Your task to perform on an android device: Go to notification settings Image 0: 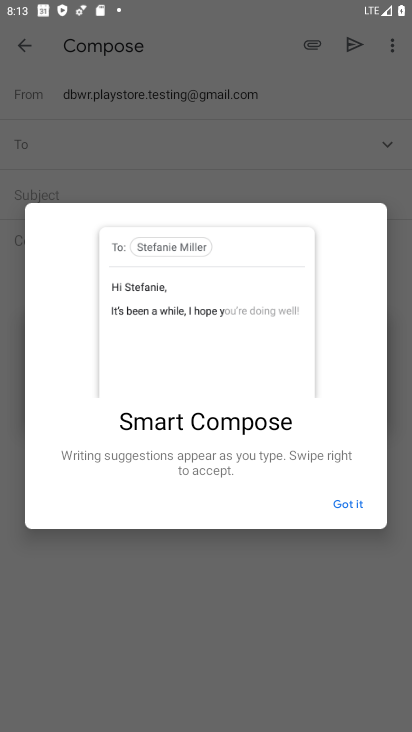
Step 0: click (350, 510)
Your task to perform on an android device: Go to notification settings Image 1: 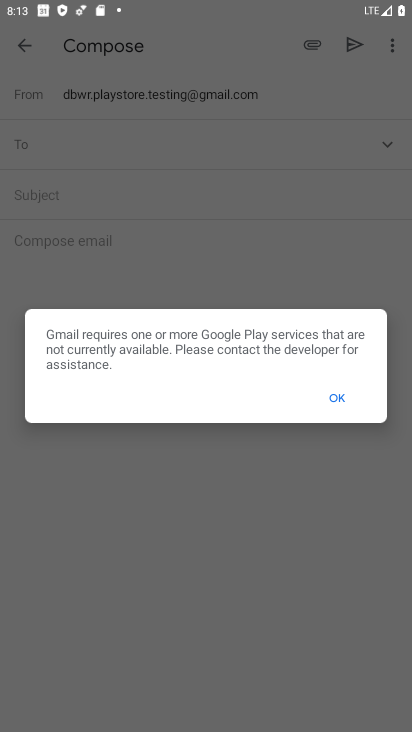
Step 1: press home button
Your task to perform on an android device: Go to notification settings Image 2: 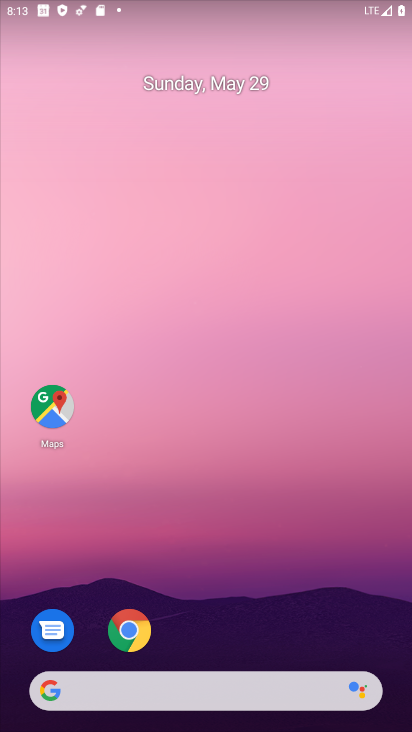
Step 2: drag from (213, 652) to (6, 1)
Your task to perform on an android device: Go to notification settings Image 3: 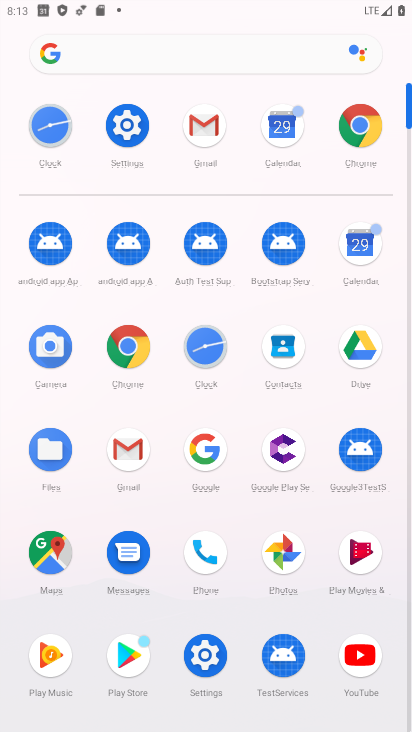
Step 3: click (124, 115)
Your task to perform on an android device: Go to notification settings Image 4: 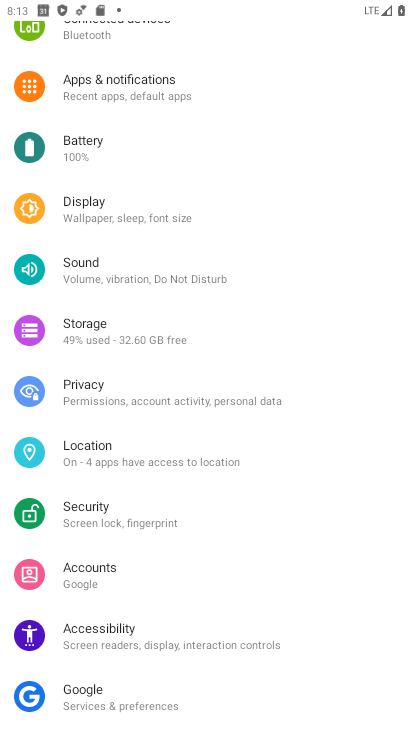
Step 4: click (126, 105)
Your task to perform on an android device: Go to notification settings Image 5: 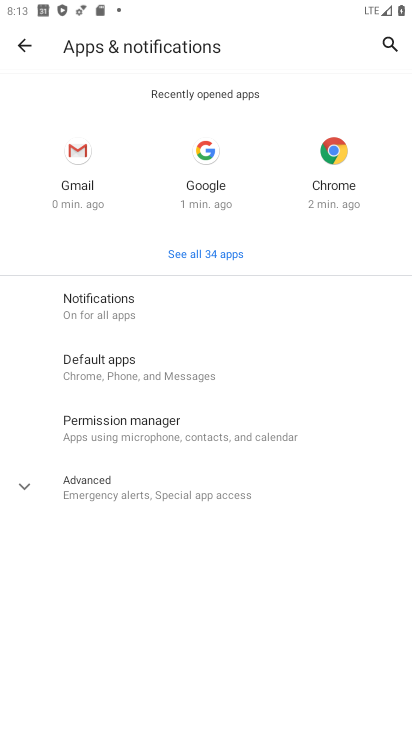
Step 5: click (139, 512)
Your task to perform on an android device: Go to notification settings Image 6: 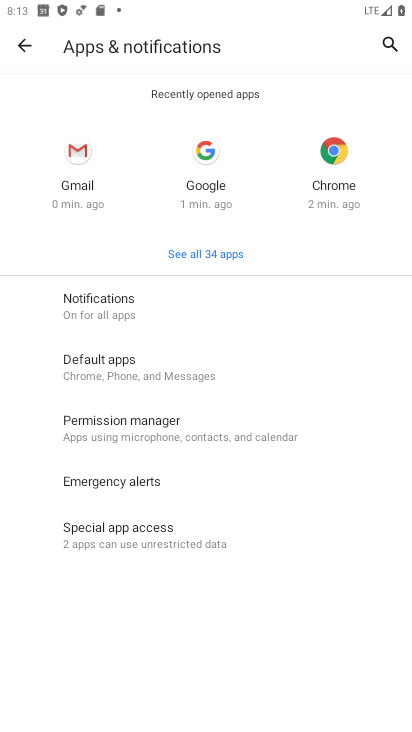
Step 6: task complete